Your task to perform on an android device: Open my contact list Image 0: 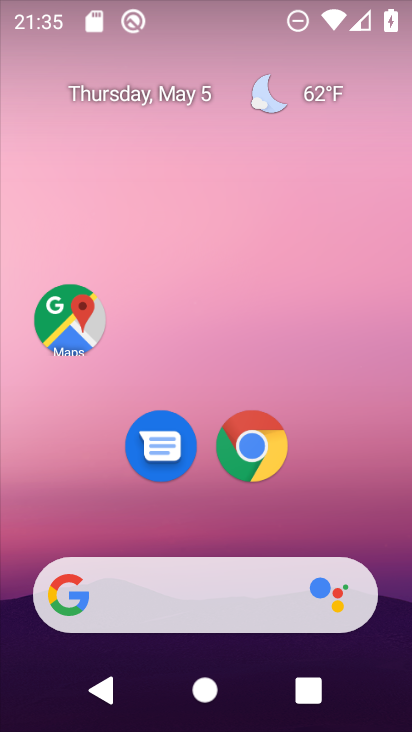
Step 0: drag from (262, 629) to (224, 346)
Your task to perform on an android device: Open my contact list Image 1: 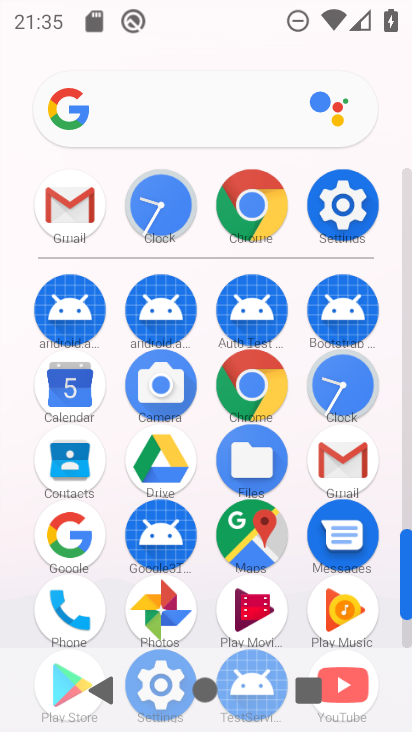
Step 1: click (85, 607)
Your task to perform on an android device: Open my contact list Image 2: 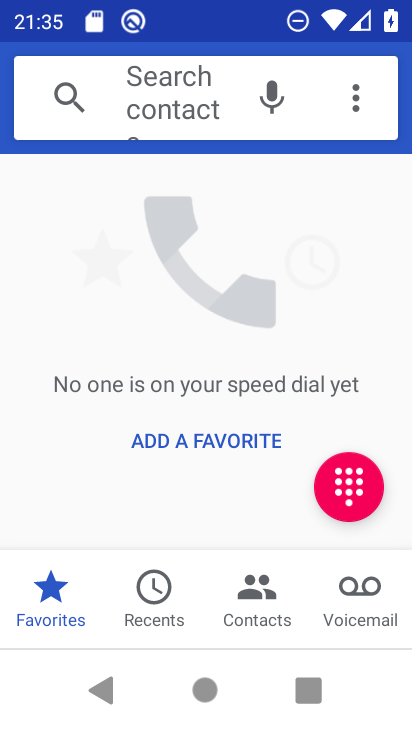
Step 2: click (251, 619)
Your task to perform on an android device: Open my contact list Image 3: 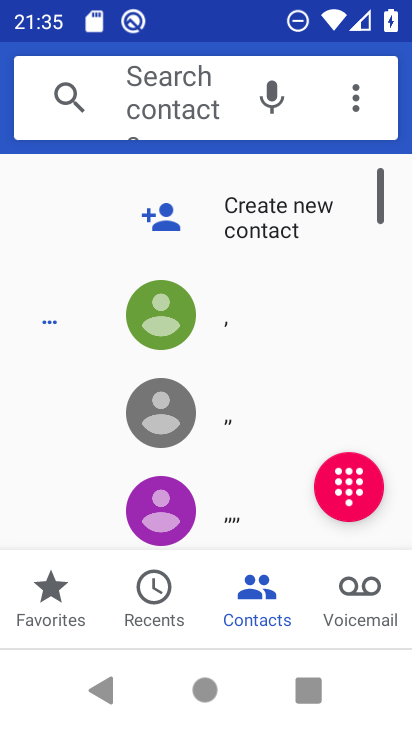
Step 3: task complete